Your task to perform on an android device: Open the map Image 0: 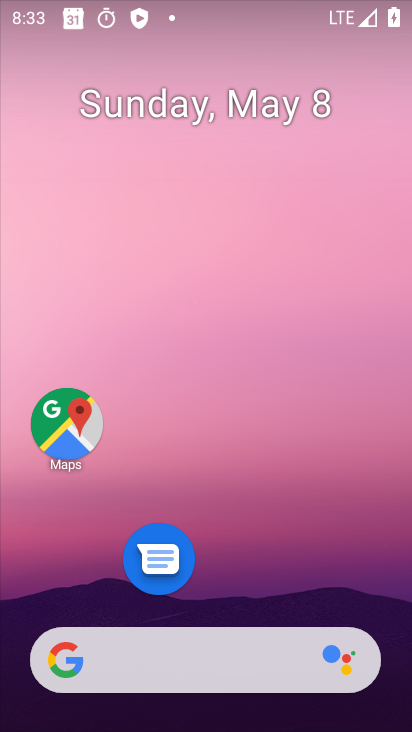
Step 0: drag from (213, 639) to (169, 86)
Your task to perform on an android device: Open the map Image 1: 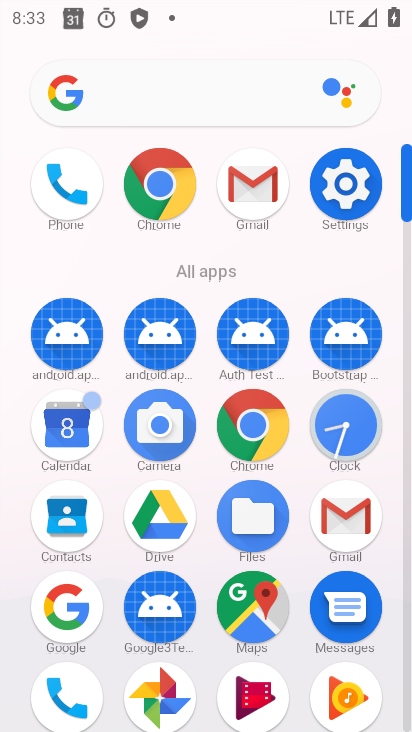
Step 1: drag from (305, 658) to (295, 297)
Your task to perform on an android device: Open the map Image 2: 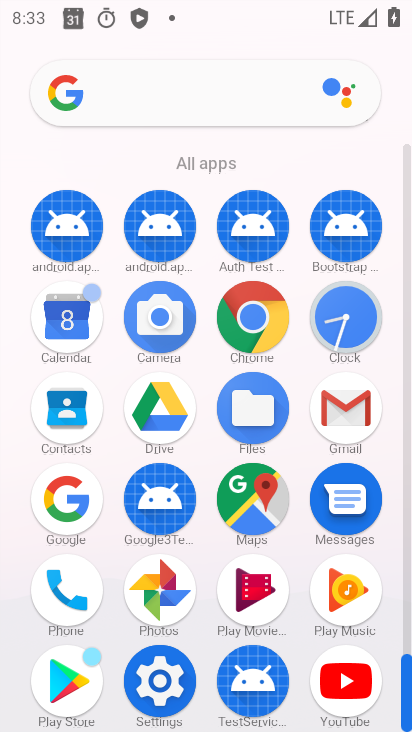
Step 2: click (271, 510)
Your task to perform on an android device: Open the map Image 3: 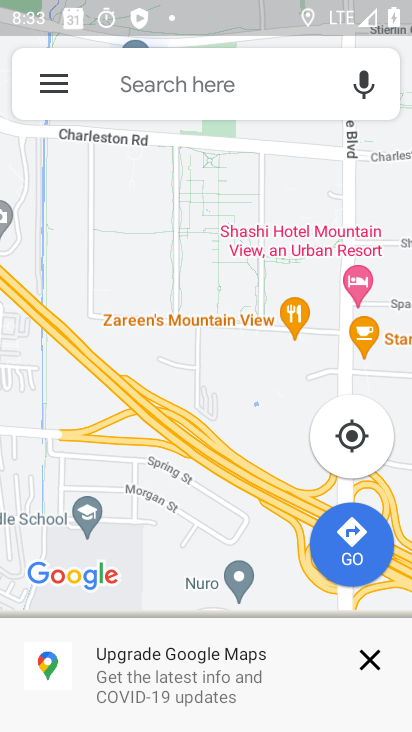
Step 3: click (366, 662)
Your task to perform on an android device: Open the map Image 4: 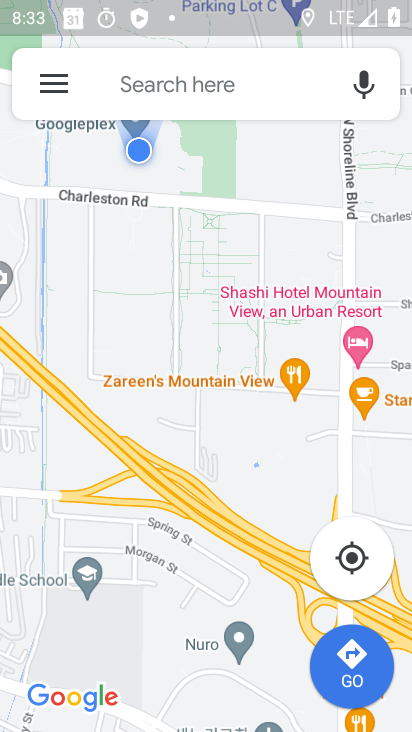
Step 4: task complete